Your task to perform on an android device: turn off location Image 0: 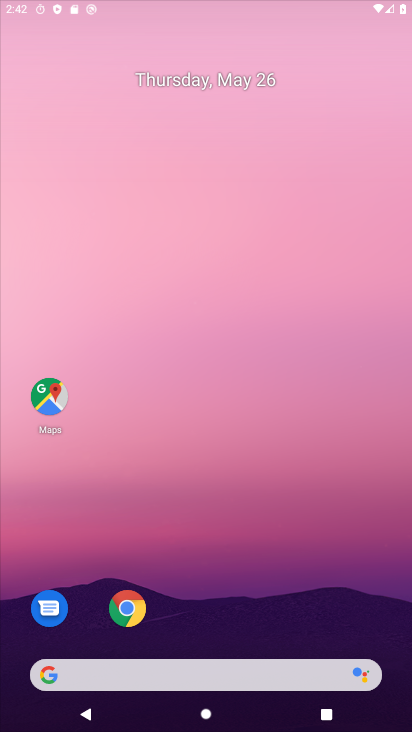
Step 0: drag from (264, 545) to (204, 63)
Your task to perform on an android device: turn off location Image 1: 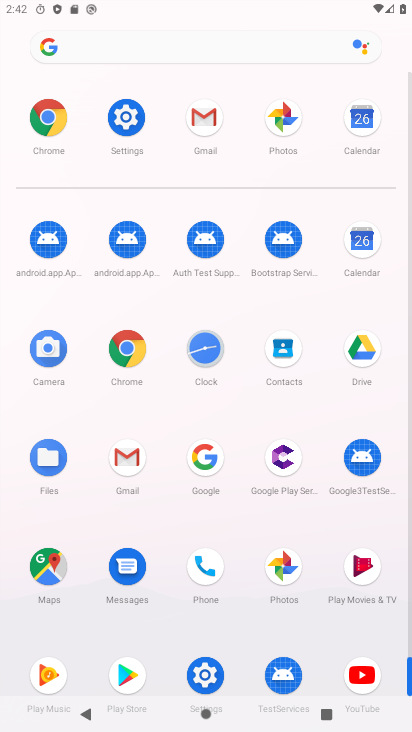
Step 1: click (132, 124)
Your task to perform on an android device: turn off location Image 2: 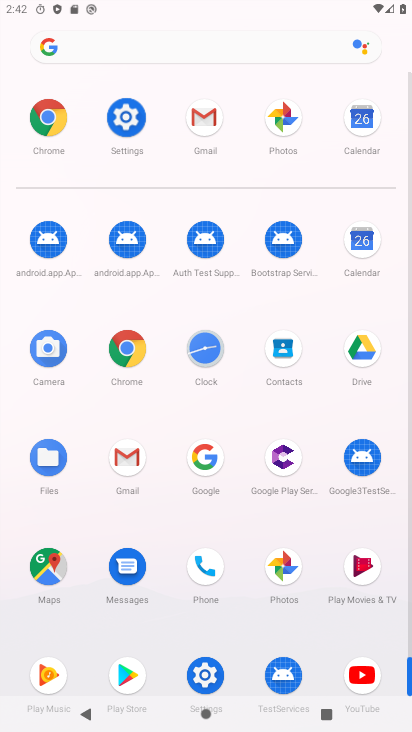
Step 2: click (132, 124)
Your task to perform on an android device: turn off location Image 3: 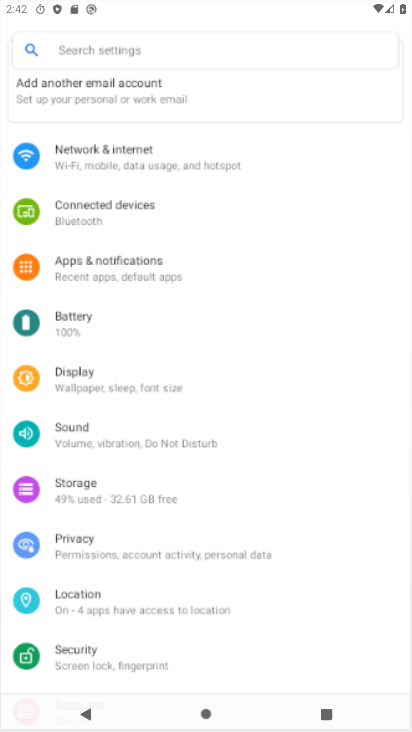
Step 3: click (121, 132)
Your task to perform on an android device: turn off location Image 4: 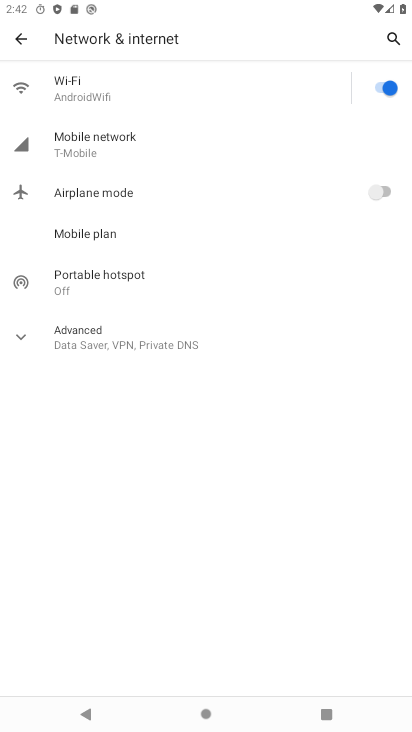
Step 4: click (17, 31)
Your task to perform on an android device: turn off location Image 5: 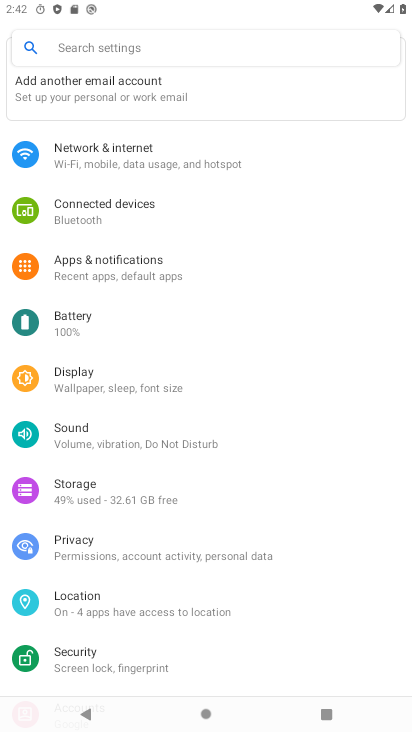
Step 5: click (82, 590)
Your task to perform on an android device: turn off location Image 6: 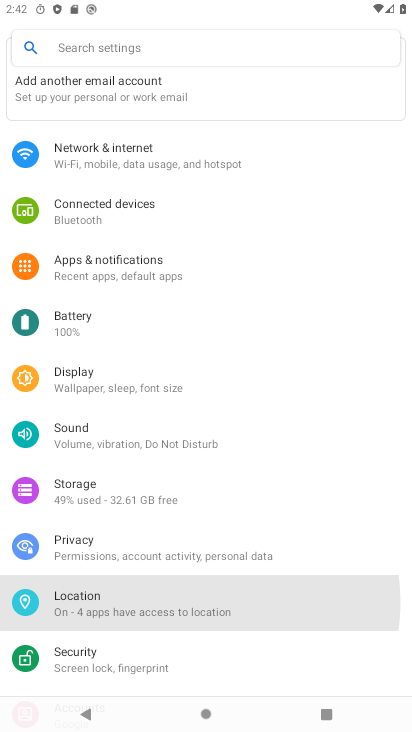
Step 6: click (82, 590)
Your task to perform on an android device: turn off location Image 7: 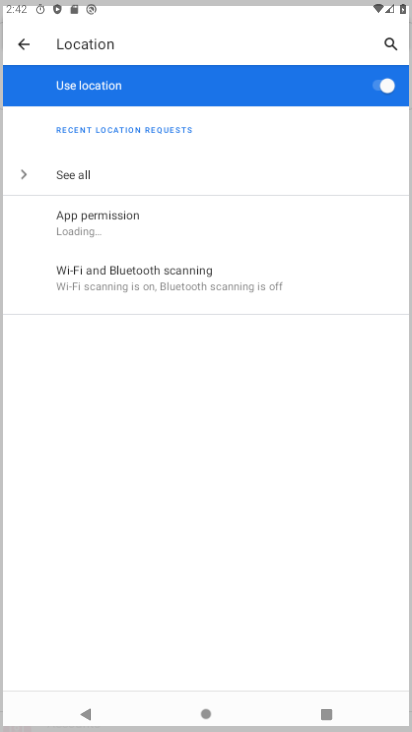
Step 7: click (82, 591)
Your task to perform on an android device: turn off location Image 8: 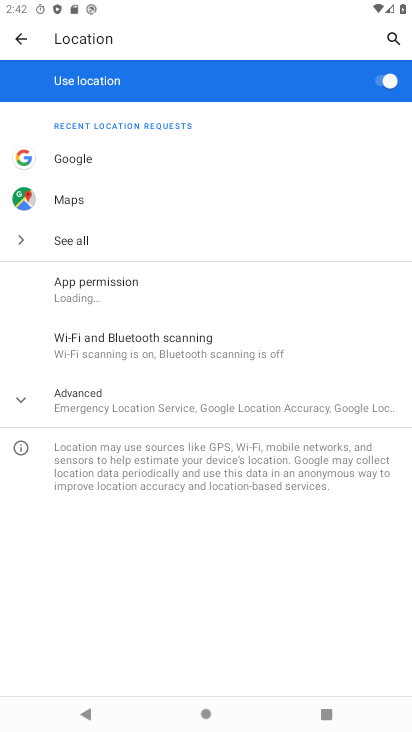
Step 8: click (392, 84)
Your task to perform on an android device: turn off location Image 9: 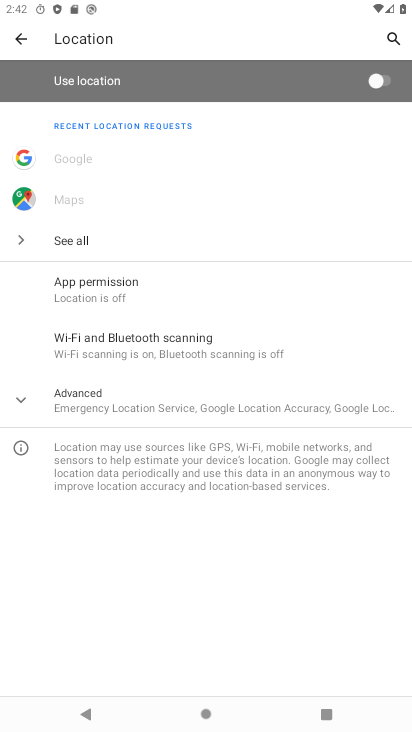
Step 9: task complete